Your task to perform on an android device: Open Amazon Image 0: 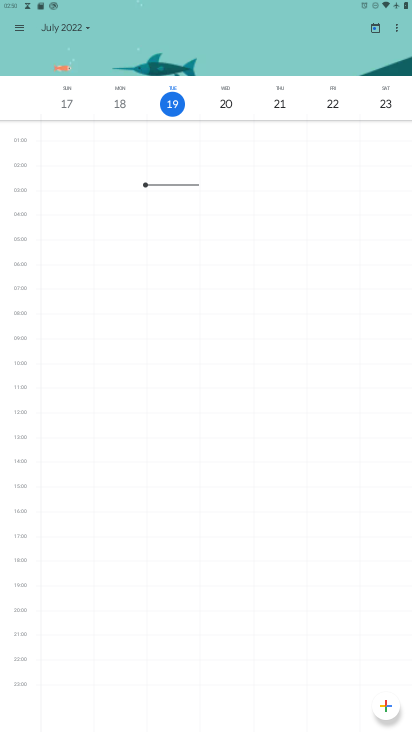
Step 0: press home button
Your task to perform on an android device: Open Amazon Image 1: 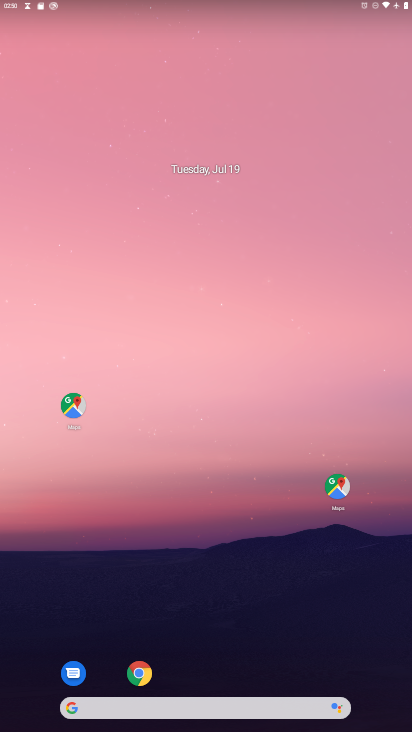
Step 1: click (140, 679)
Your task to perform on an android device: Open Amazon Image 2: 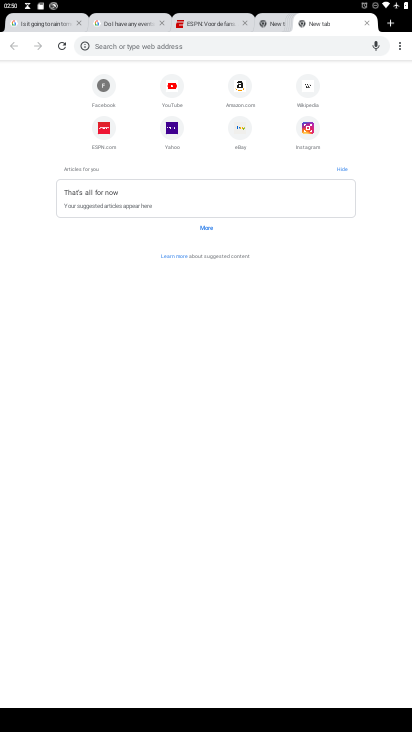
Step 2: click (243, 78)
Your task to perform on an android device: Open Amazon Image 3: 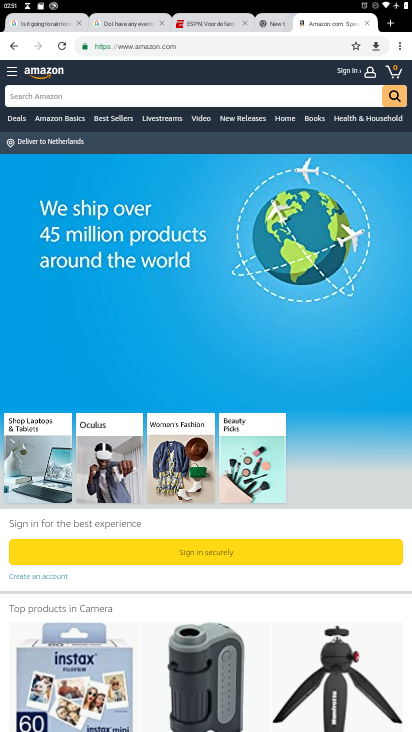
Step 3: task complete